Your task to perform on an android device: see tabs open on other devices in the chrome app Image 0: 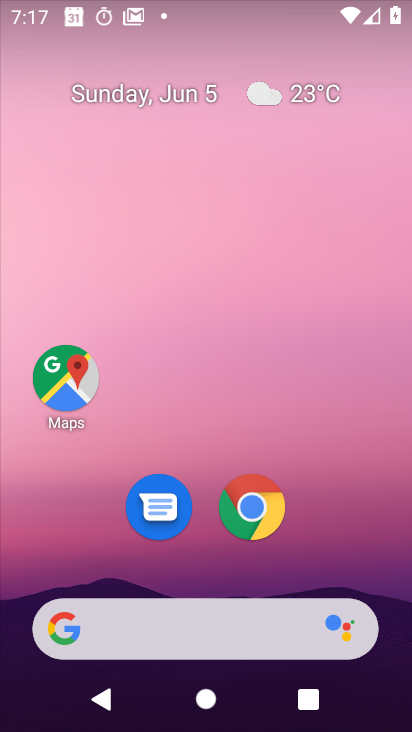
Step 0: drag from (265, 659) to (248, 249)
Your task to perform on an android device: see tabs open on other devices in the chrome app Image 1: 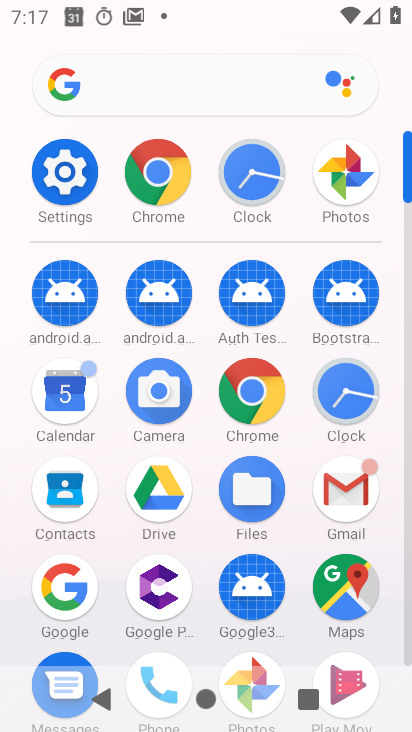
Step 1: click (151, 185)
Your task to perform on an android device: see tabs open on other devices in the chrome app Image 2: 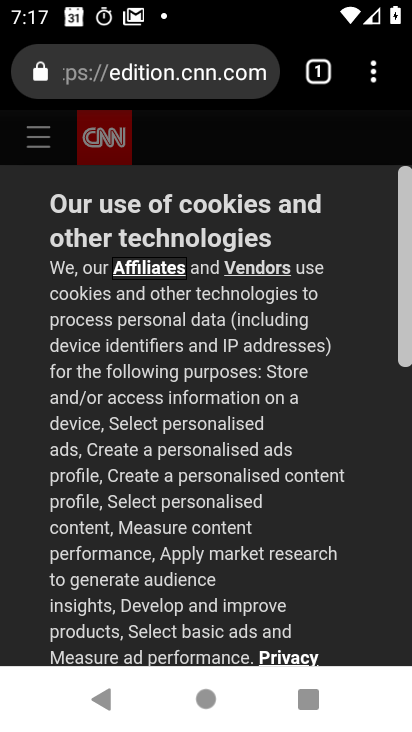
Step 2: click (306, 71)
Your task to perform on an android device: see tabs open on other devices in the chrome app Image 3: 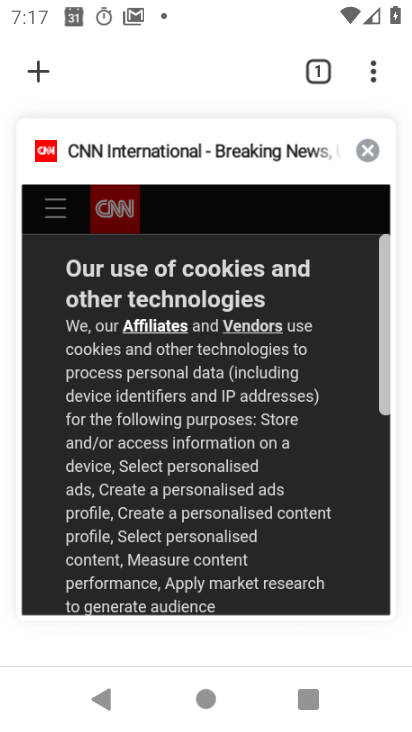
Step 3: click (36, 69)
Your task to perform on an android device: see tabs open on other devices in the chrome app Image 4: 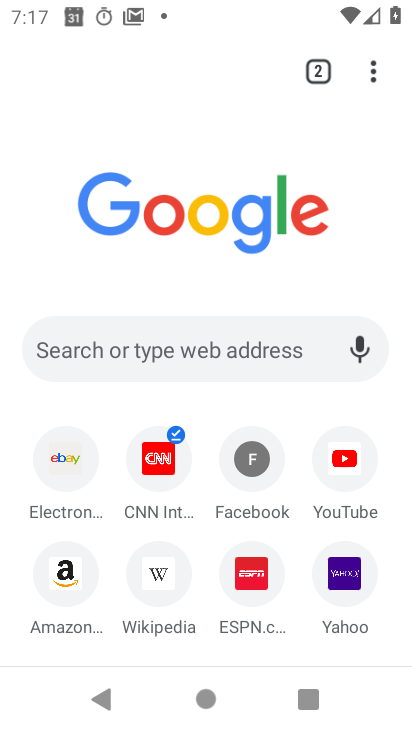
Step 4: task complete